Your task to perform on an android device: Toggle the flashlight Image 0: 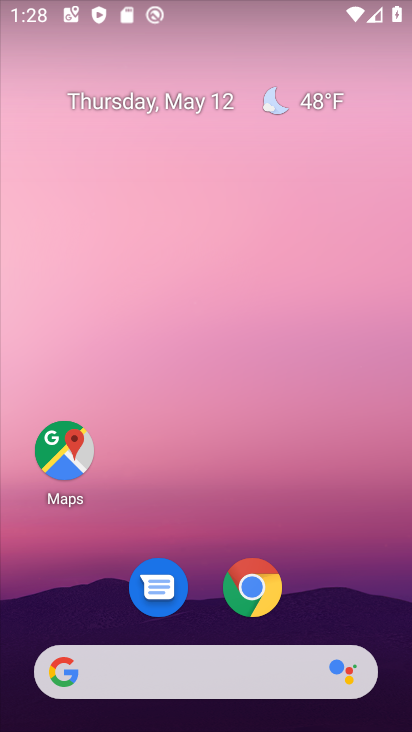
Step 0: drag from (264, 656) to (281, 143)
Your task to perform on an android device: Toggle the flashlight Image 1: 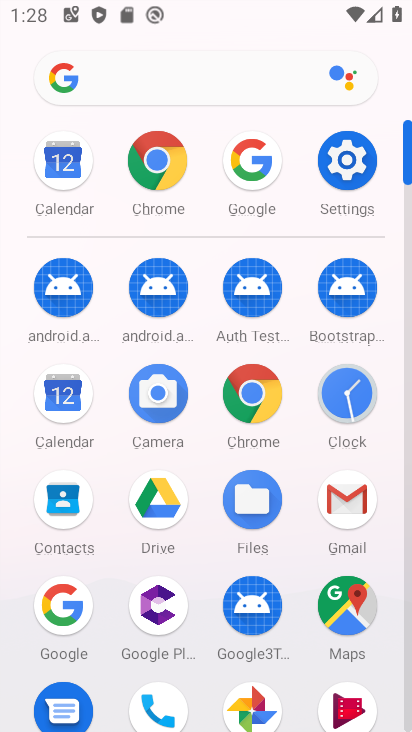
Step 1: task complete